Your task to perform on an android device: Open Wikipedia Image 0: 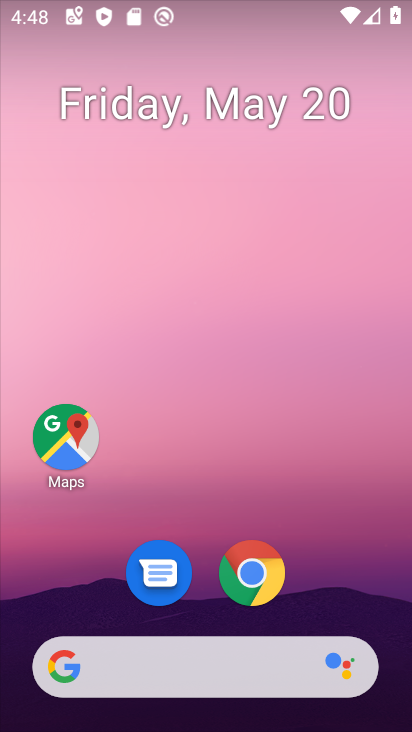
Step 0: click (252, 578)
Your task to perform on an android device: Open Wikipedia Image 1: 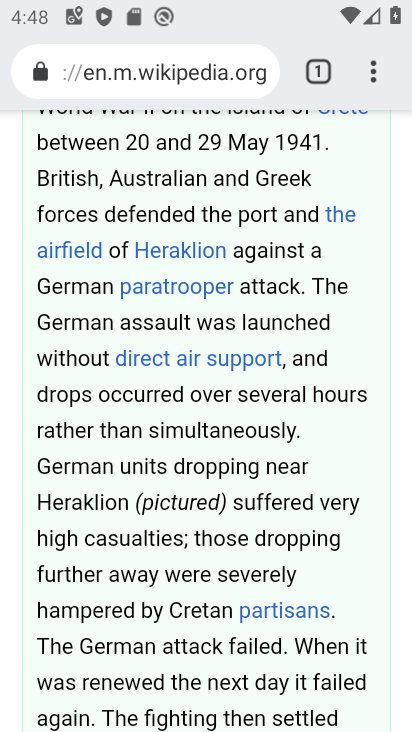
Step 1: task complete